Your task to perform on an android device: remove spam from my inbox in the gmail app Image 0: 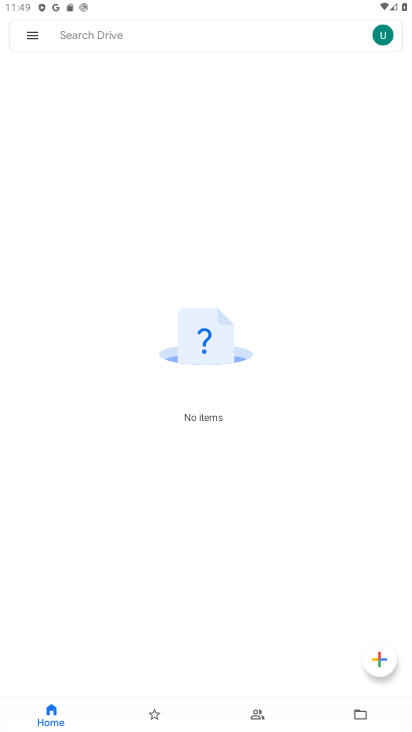
Step 0: press home button
Your task to perform on an android device: remove spam from my inbox in the gmail app Image 1: 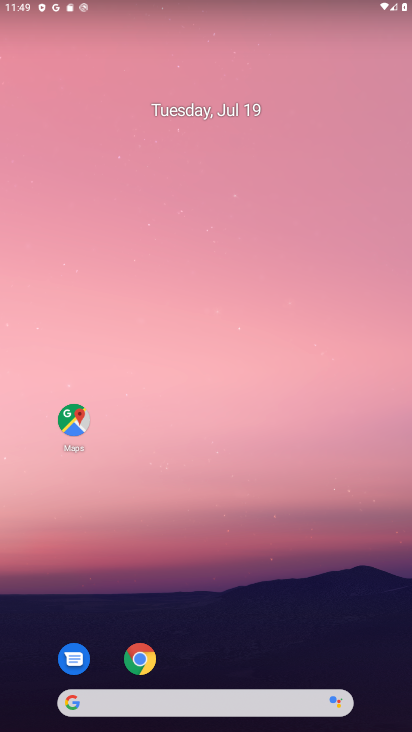
Step 1: drag from (222, 672) to (261, 79)
Your task to perform on an android device: remove spam from my inbox in the gmail app Image 2: 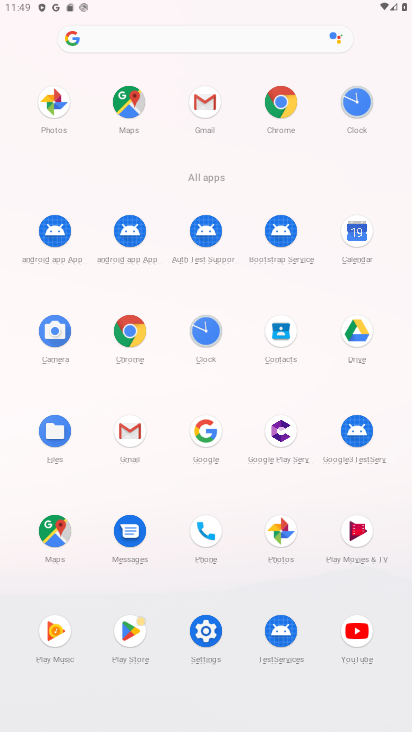
Step 2: click (197, 99)
Your task to perform on an android device: remove spam from my inbox in the gmail app Image 3: 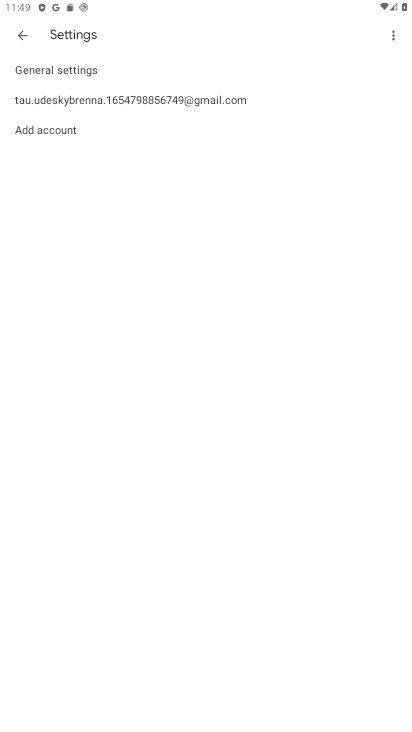
Step 3: click (22, 39)
Your task to perform on an android device: remove spam from my inbox in the gmail app Image 4: 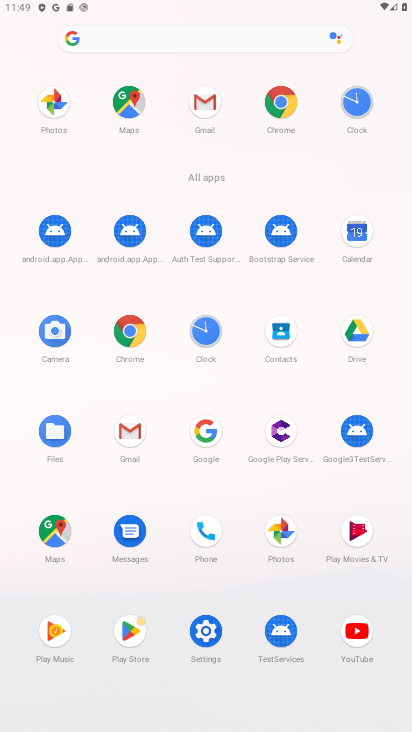
Step 4: click (206, 100)
Your task to perform on an android device: remove spam from my inbox in the gmail app Image 5: 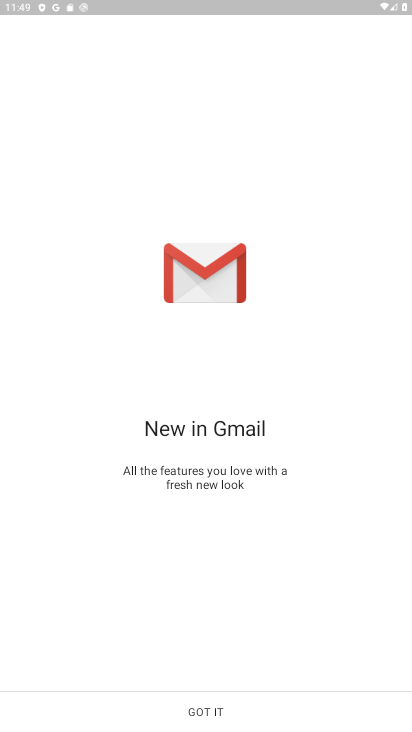
Step 5: click (212, 701)
Your task to perform on an android device: remove spam from my inbox in the gmail app Image 6: 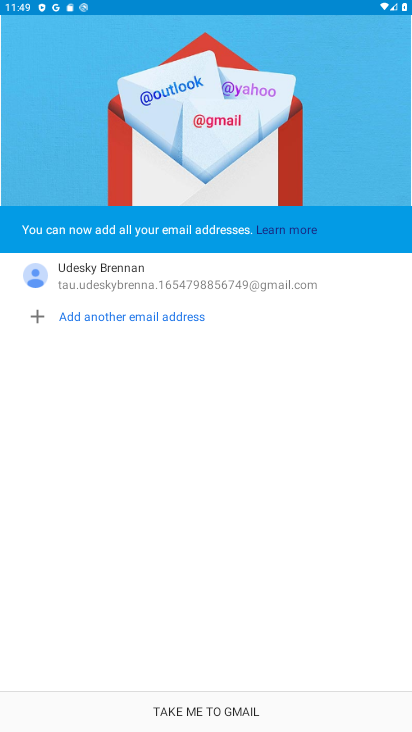
Step 6: click (198, 710)
Your task to perform on an android device: remove spam from my inbox in the gmail app Image 7: 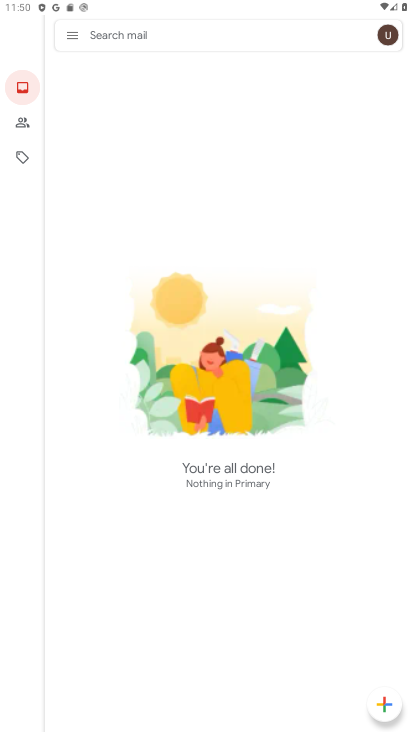
Step 7: click (73, 28)
Your task to perform on an android device: remove spam from my inbox in the gmail app Image 8: 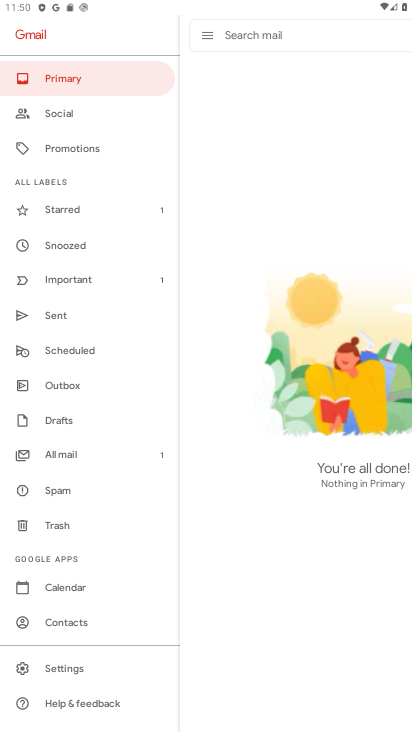
Step 8: click (68, 488)
Your task to perform on an android device: remove spam from my inbox in the gmail app Image 9: 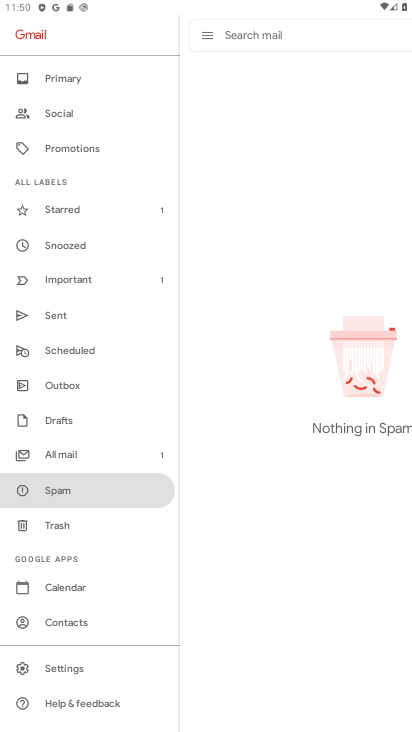
Step 9: task complete